Your task to perform on an android device: What's on my calendar tomorrow? Image 0: 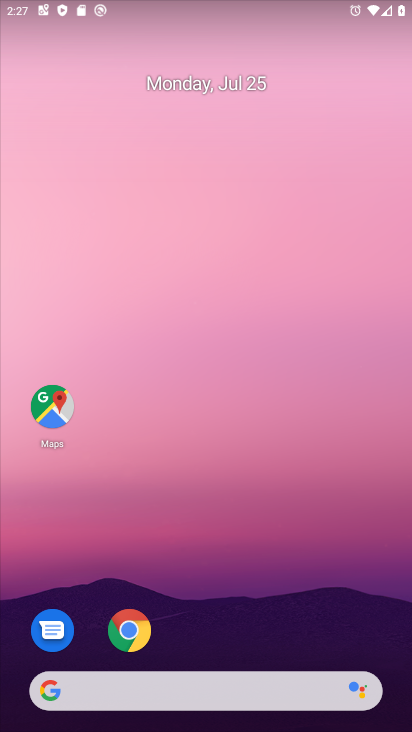
Step 0: drag from (259, 598) to (208, 27)
Your task to perform on an android device: What's on my calendar tomorrow? Image 1: 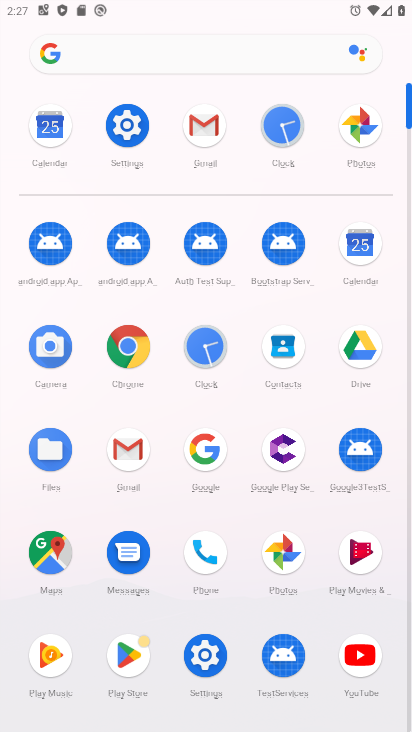
Step 1: click (53, 154)
Your task to perform on an android device: What's on my calendar tomorrow? Image 2: 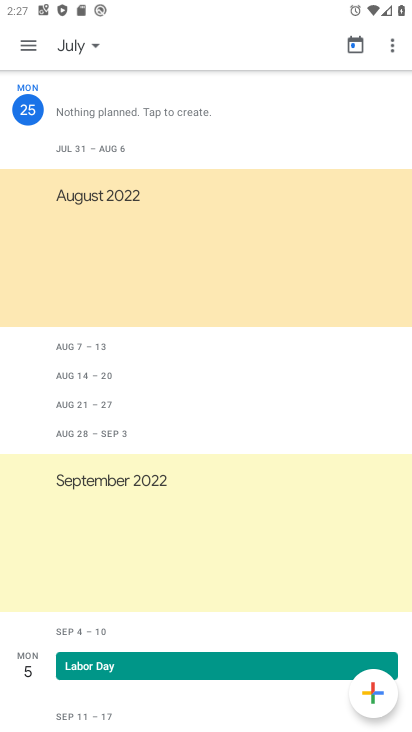
Step 2: task complete